Your task to perform on an android device: Open wifi settings Image 0: 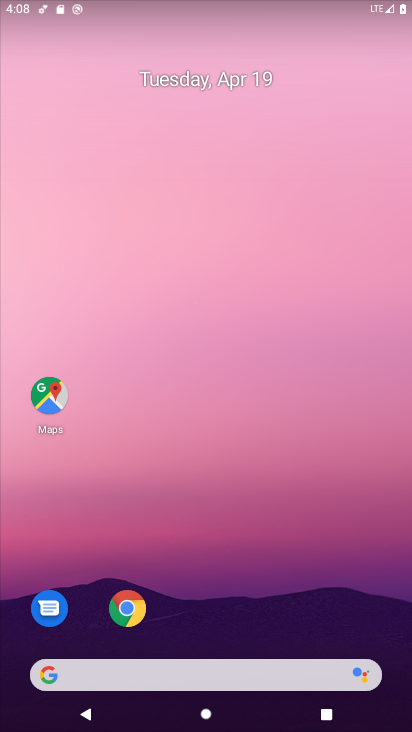
Step 0: drag from (251, 576) to (247, 68)
Your task to perform on an android device: Open wifi settings Image 1: 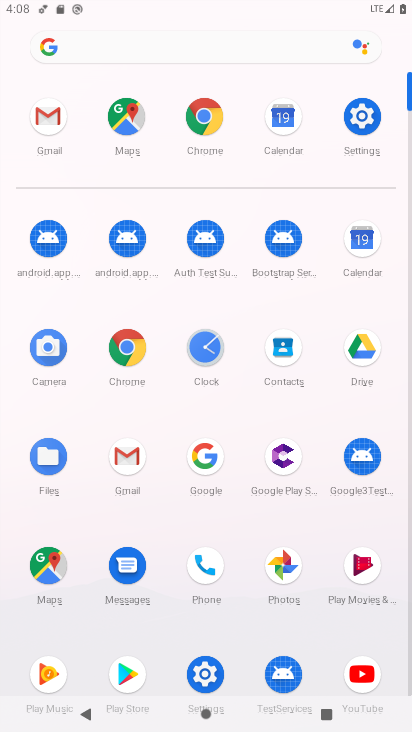
Step 1: click (350, 117)
Your task to perform on an android device: Open wifi settings Image 2: 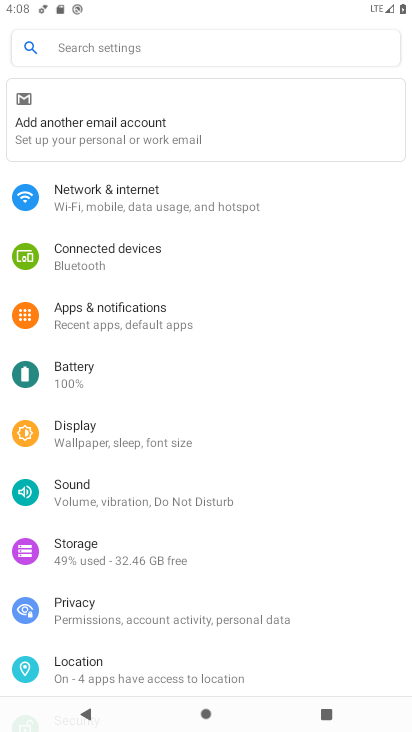
Step 2: click (144, 195)
Your task to perform on an android device: Open wifi settings Image 3: 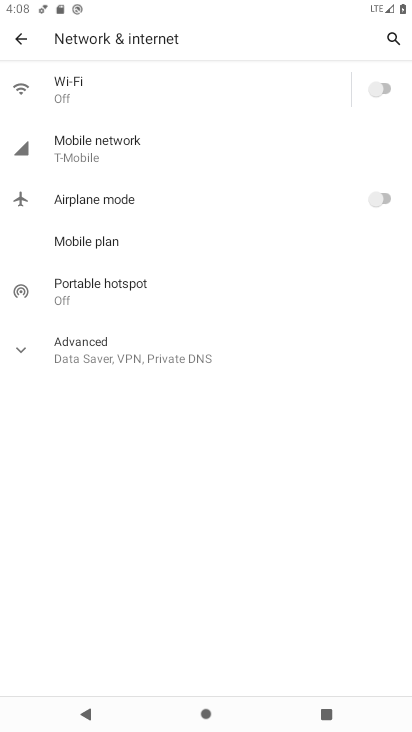
Step 3: click (174, 100)
Your task to perform on an android device: Open wifi settings Image 4: 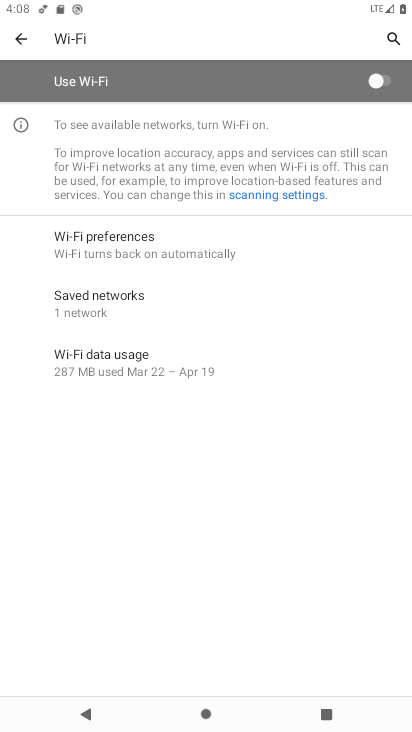
Step 4: click (377, 74)
Your task to perform on an android device: Open wifi settings Image 5: 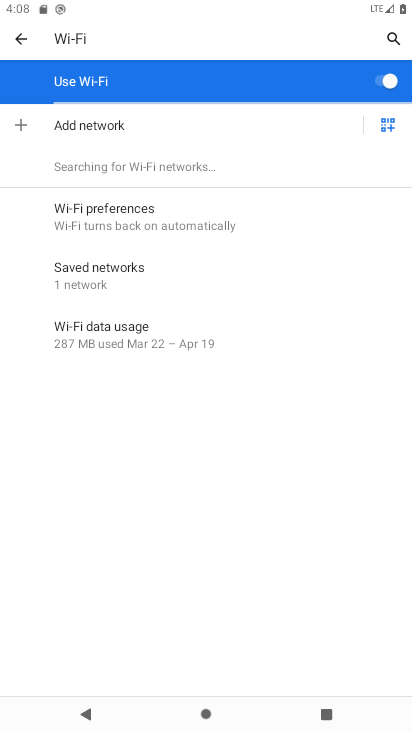
Step 5: click (385, 126)
Your task to perform on an android device: Open wifi settings Image 6: 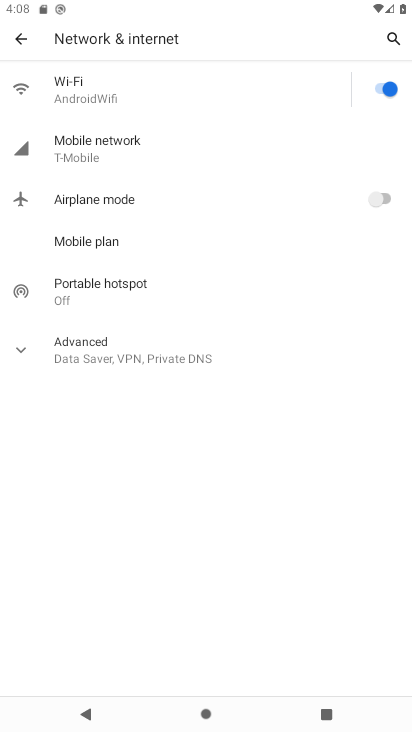
Step 6: click (265, 95)
Your task to perform on an android device: Open wifi settings Image 7: 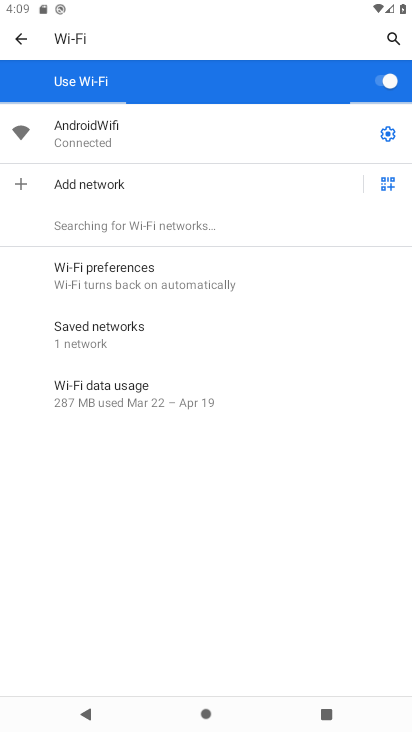
Step 7: click (390, 134)
Your task to perform on an android device: Open wifi settings Image 8: 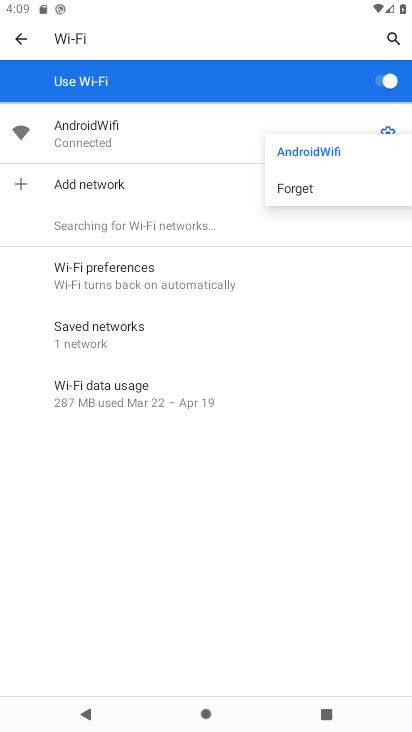
Step 8: click (389, 127)
Your task to perform on an android device: Open wifi settings Image 9: 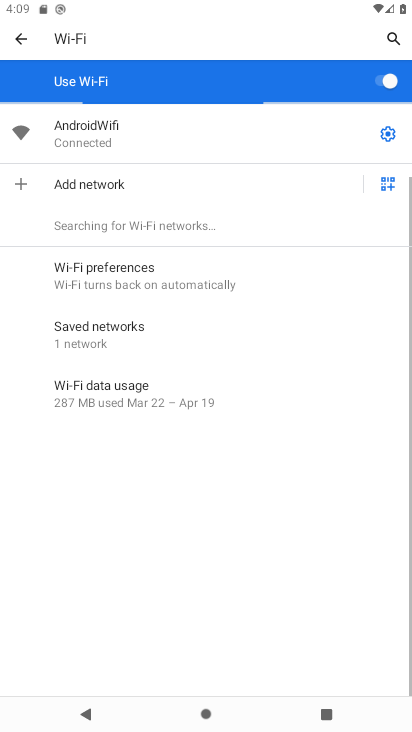
Step 9: click (388, 127)
Your task to perform on an android device: Open wifi settings Image 10: 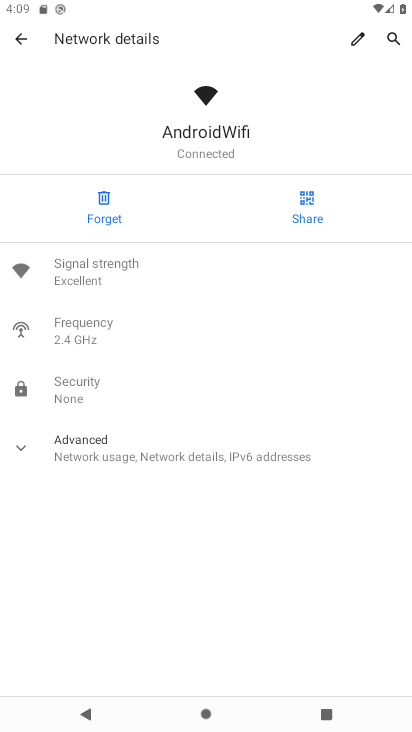
Step 10: task complete